Your task to perform on an android device: check google app version Image 0: 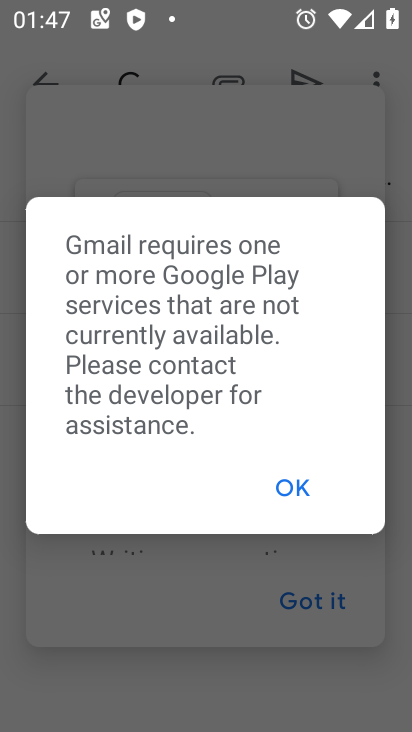
Step 0: press home button
Your task to perform on an android device: check google app version Image 1: 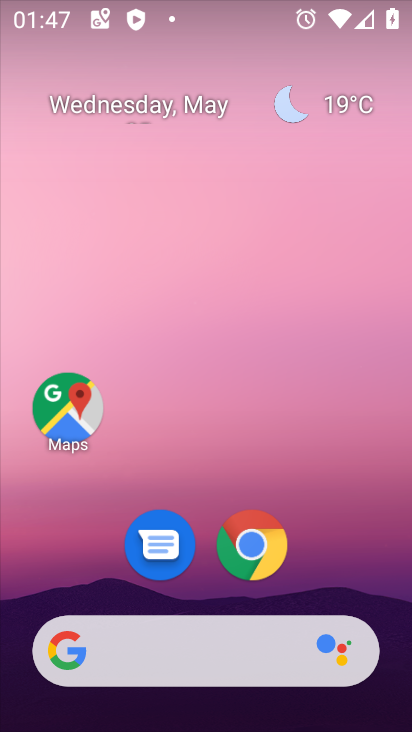
Step 1: drag from (317, 505) to (261, 104)
Your task to perform on an android device: check google app version Image 2: 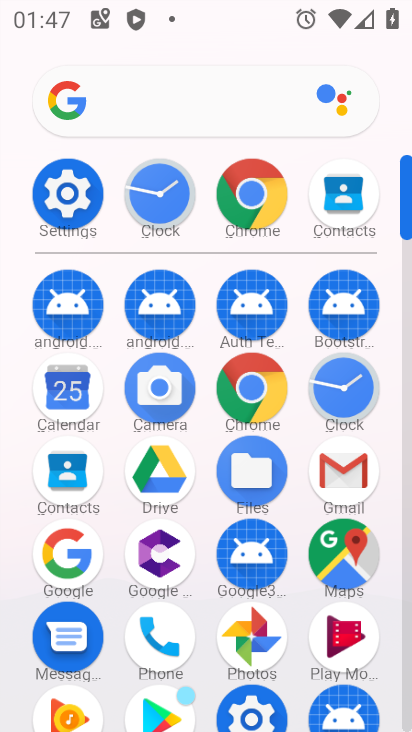
Step 2: click (54, 556)
Your task to perform on an android device: check google app version Image 3: 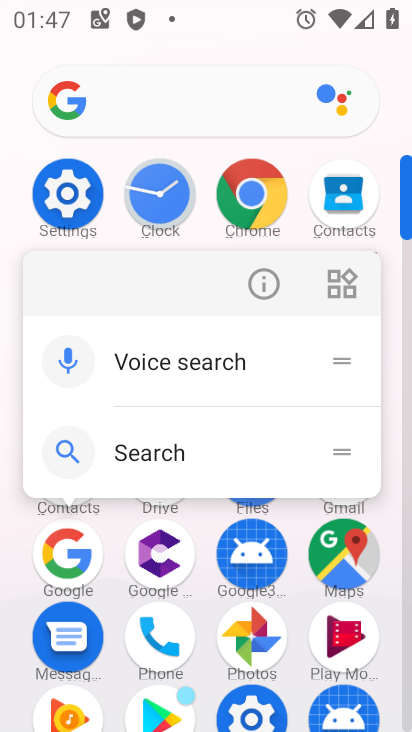
Step 3: click (275, 283)
Your task to perform on an android device: check google app version Image 4: 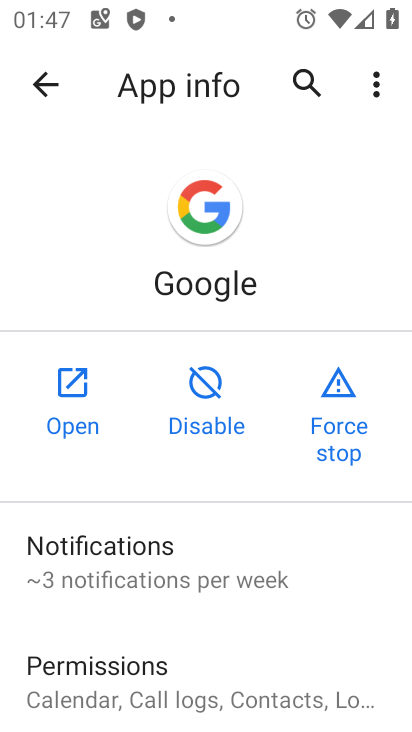
Step 4: drag from (240, 540) to (216, 81)
Your task to perform on an android device: check google app version Image 5: 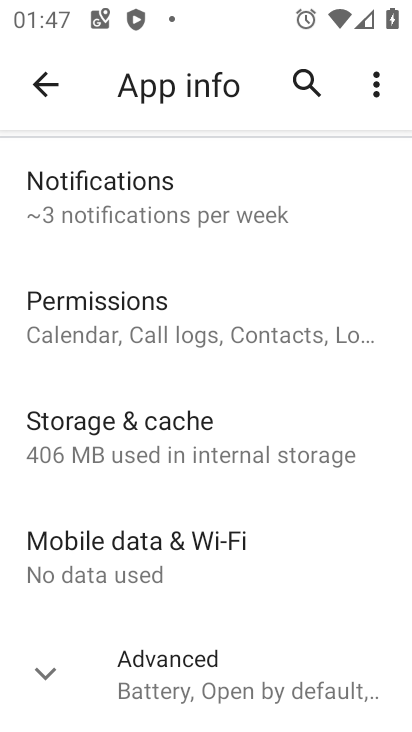
Step 5: drag from (258, 558) to (253, 151)
Your task to perform on an android device: check google app version Image 6: 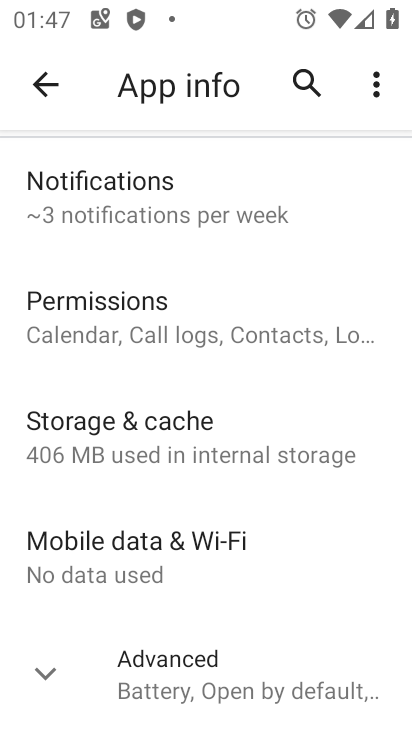
Step 6: click (244, 692)
Your task to perform on an android device: check google app version Image 7: 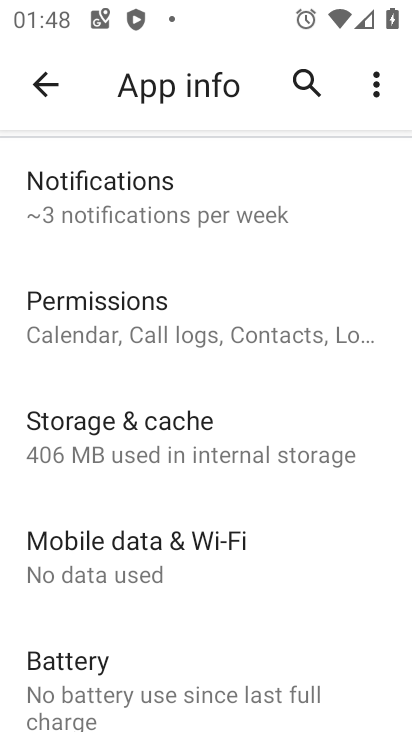
Step 7: task complete